Your task to perform on an android device: Open network settings Image 0: 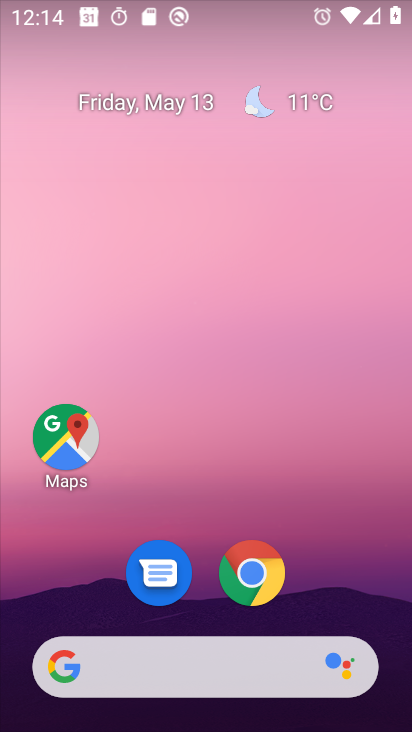
Step 0: drag from (396, 480) to (390, 421)
Your task to perform on an android device: Open network settings Image 1: 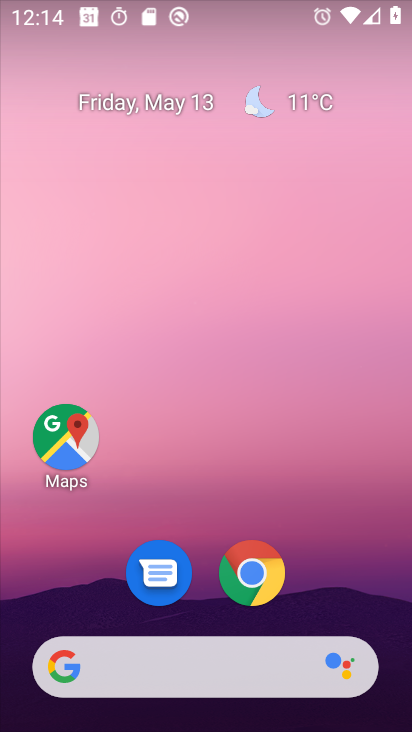
Step 1: drag from (402, 666) to (364, 302)
Your task to perform on an android device: Open network settings Image 2: 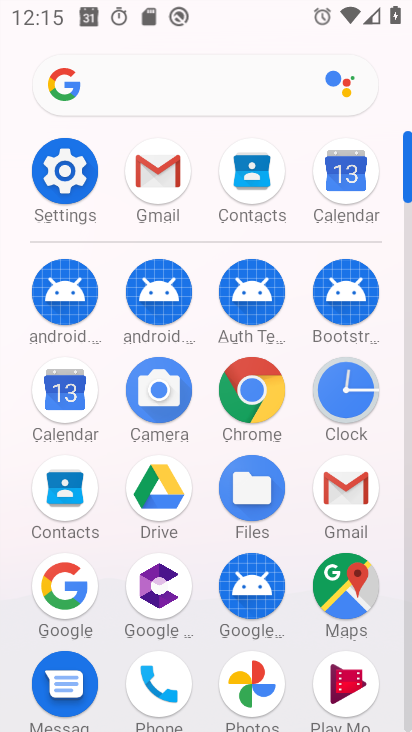
Step 2: click (58, 178)
Your task to perform on an android device: Open network settings Image 3: 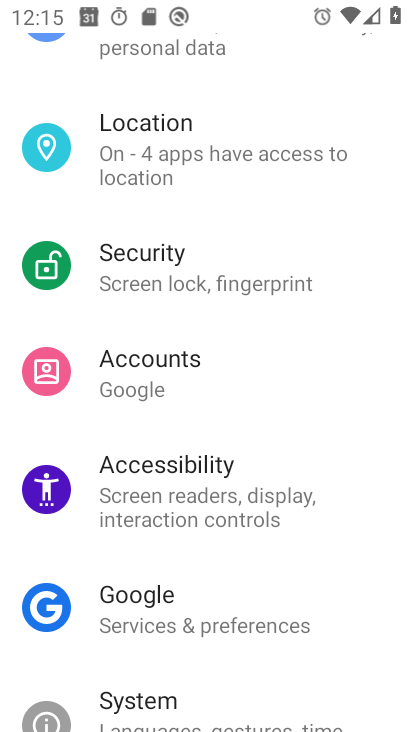
Step 3: drag from (336, 279) to (351, 517)
Your task to perform on an android device: Open network settings Image 4: 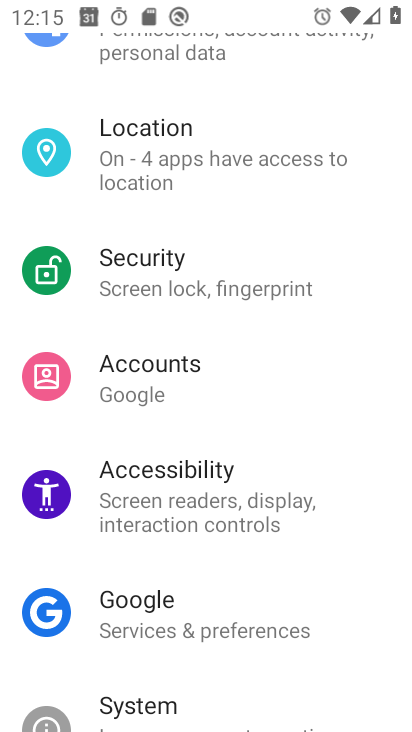
Step 4: drag from (333, 90) to (372, 564)
Your task to perform on an android device: Open network settings Image 5: 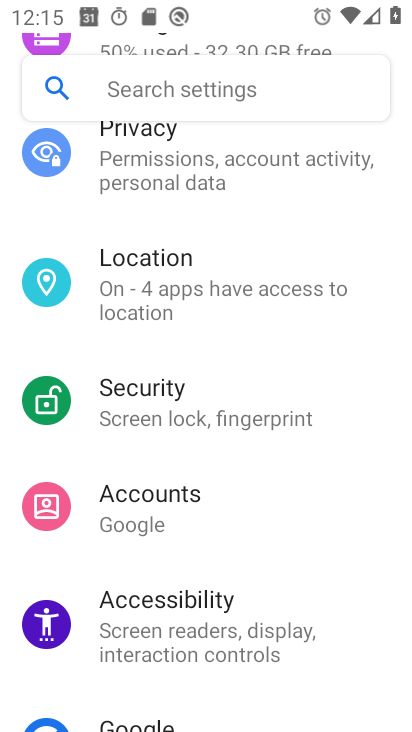
Step 5: drag from (367, 138) to (359, 600)
Your task to perform on an android device: Open network settings Image 6: 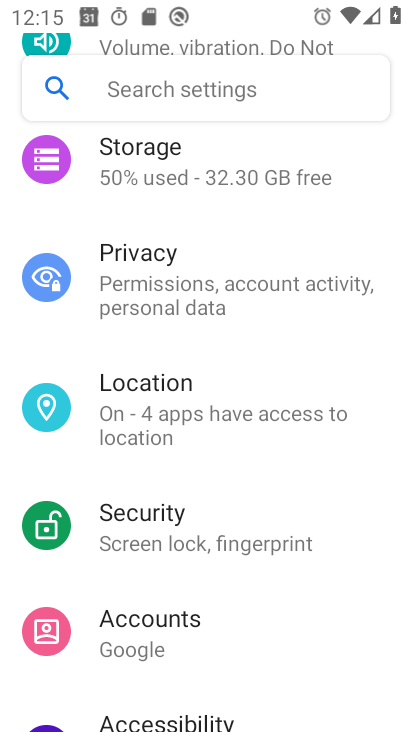
Step 6: drag from (384, 183) to (384, 470)
Your task to perform on an android device: Open network settings Image 7: 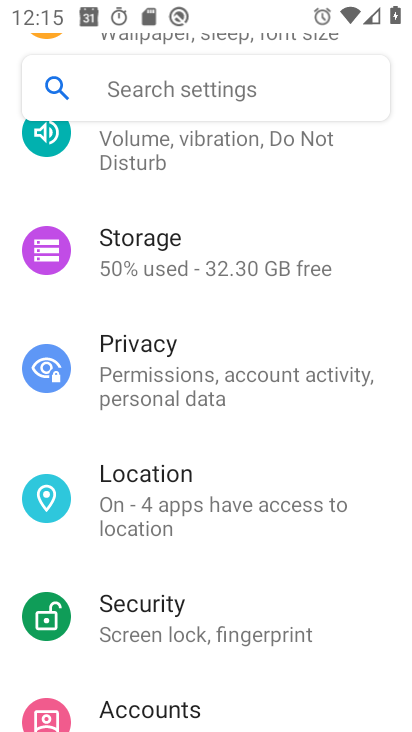
Step 7: drag from (373, 181) to (375, 376)
Your task to perform on an android device: Open network settings Image 8: 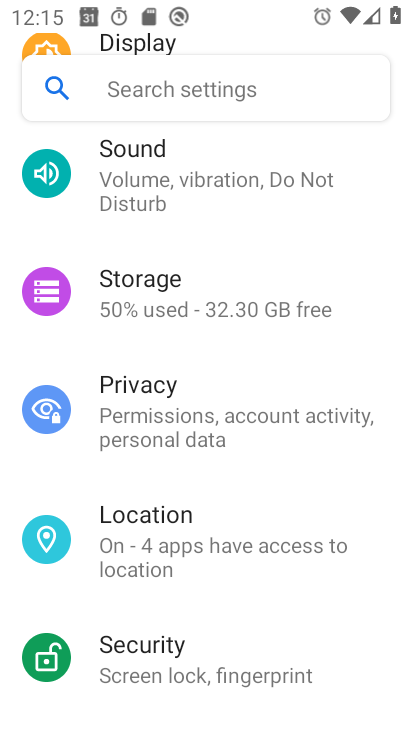
Step 8: drag from (392, 225) to (386, 478)
Your task to perform on an android device: Open network settings Image 9: 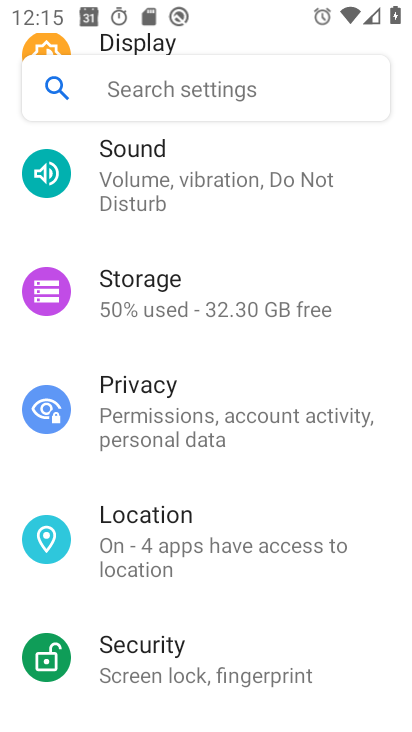
Step 9: drag from (397, 289) to (393, 480)
Your task to perform on an android device: Open network settings Image 10: 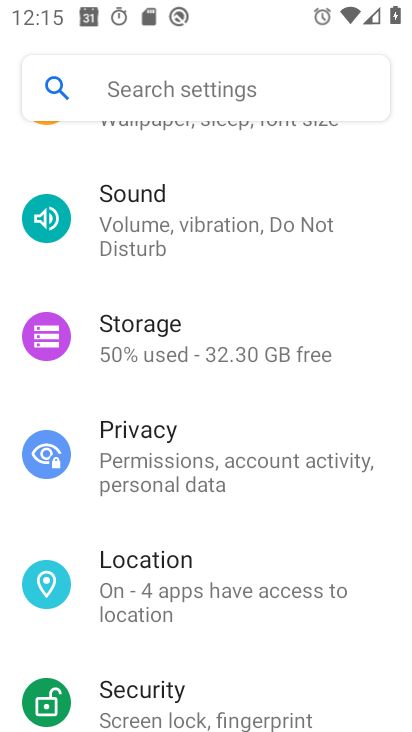
Step 10: drag from (385, 587) to (388, 645)
Your task to perform on an android device: Open network settings Image 11: 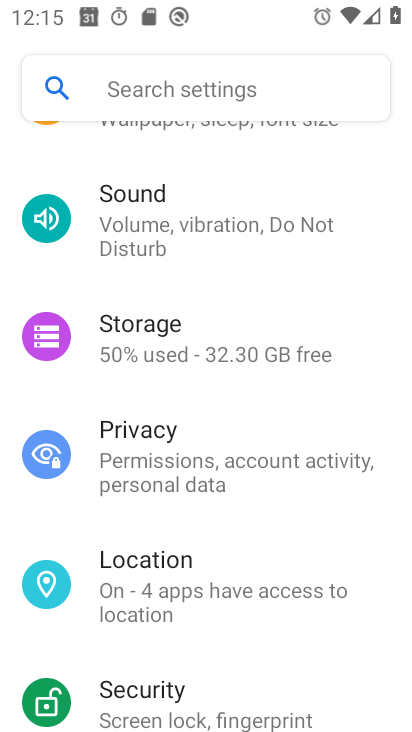
Step 11: drag from (387, 146) to (398, 638)
Your task to perform on an android device: Open network settings Image 12: 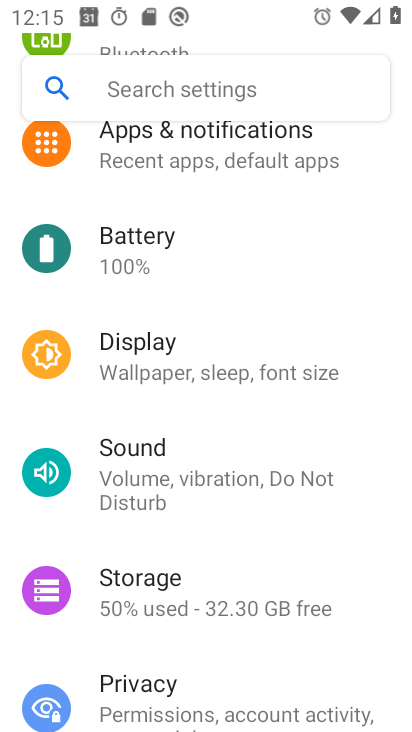
Step 12: drag from (376, 157) to (399, 467)
Your task to perform on an android device: Open network settings Image 13: 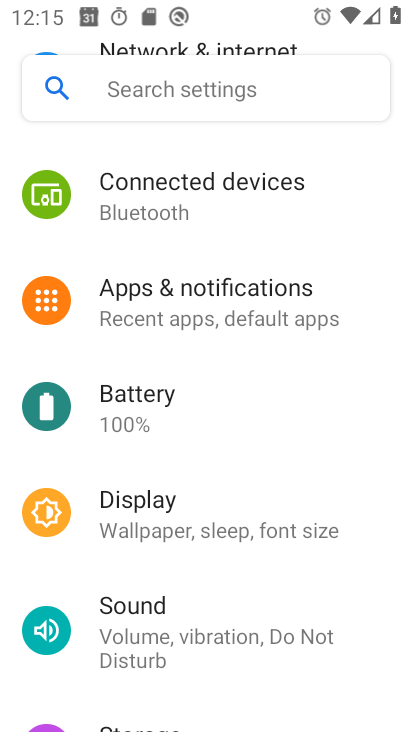
Step 13: drag from (369, 154) to (408, 329)
Your task to perform on an android device: Open network settings Image 14: 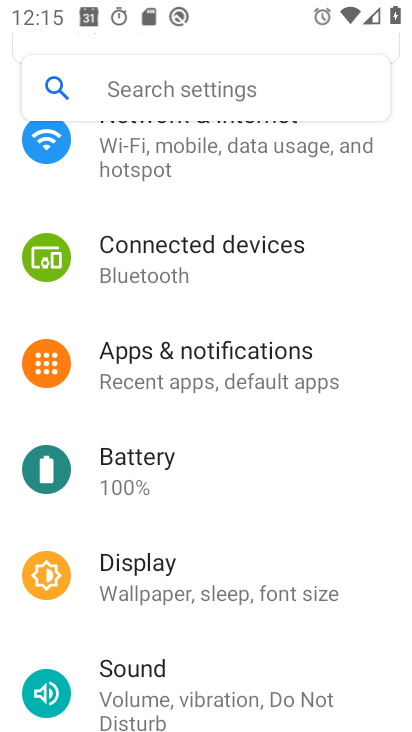
Step 14: drag from (397, 148) to (399, 519)
Your task to perform on an android device: Open network settings Image 15: 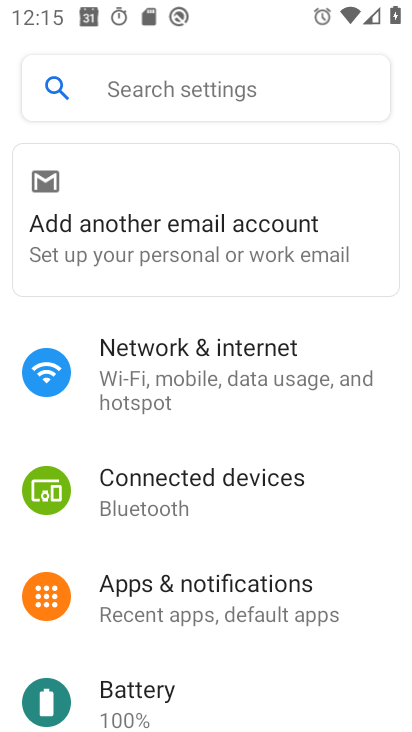
Step 15: drag from (377, 261) to (356, 501)
Your task to perform on an android device: Open network settings Image 16: 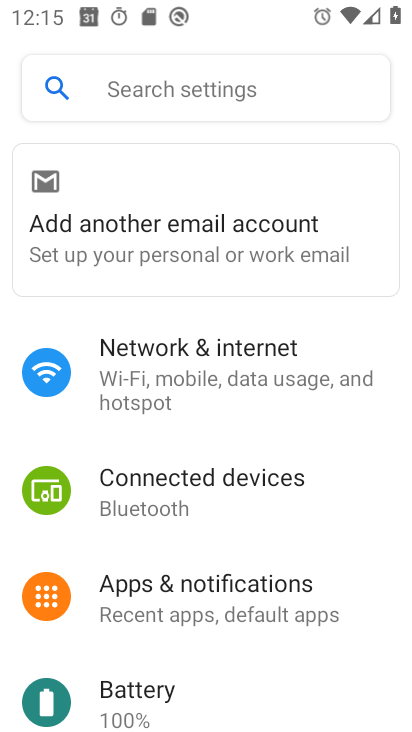
Step 16: drag from (390, 150) to (398, 478)
Your task to perform on an android device: Open network settings Image 17: 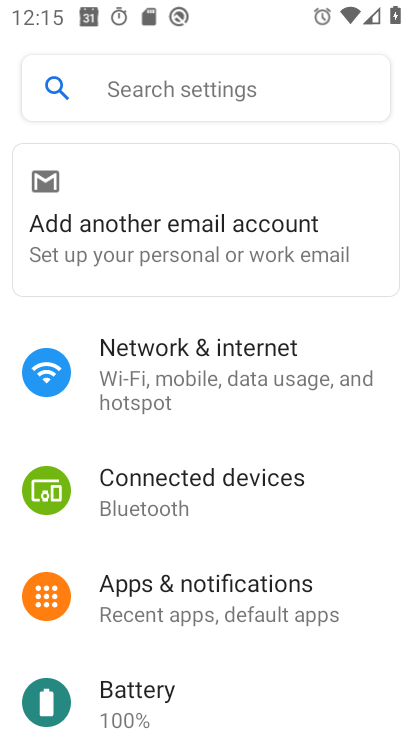
Step 17: click (184, 356)
Your task to perform on an android device: Open network settings Image 18: 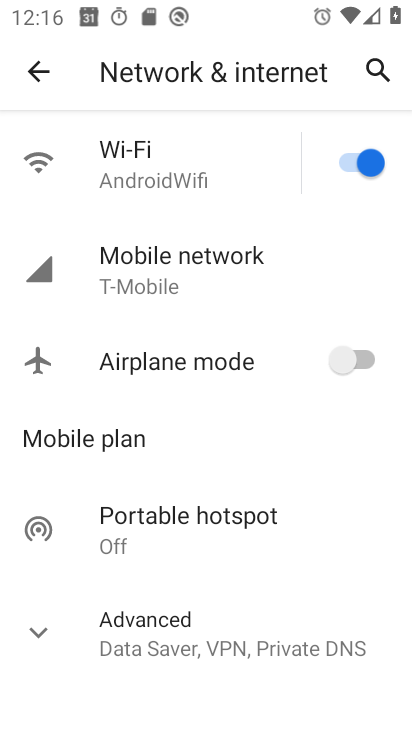
Step 18: click (132, 267)
Your task to perform on an android device: Open network settings Image 19: 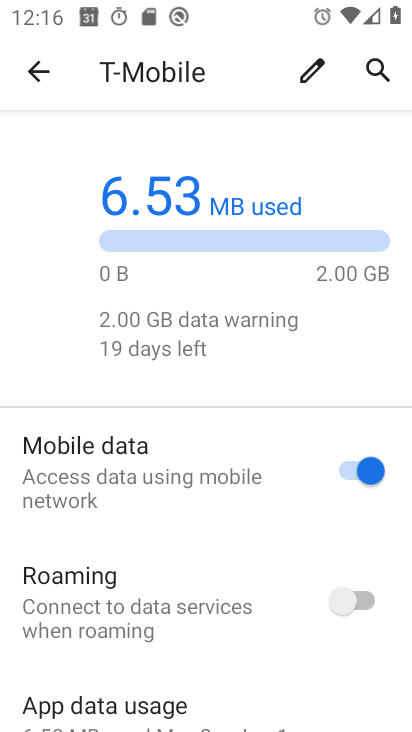
Step 19: task complete